Your task to perform on an android device: Open location settings Image 0: 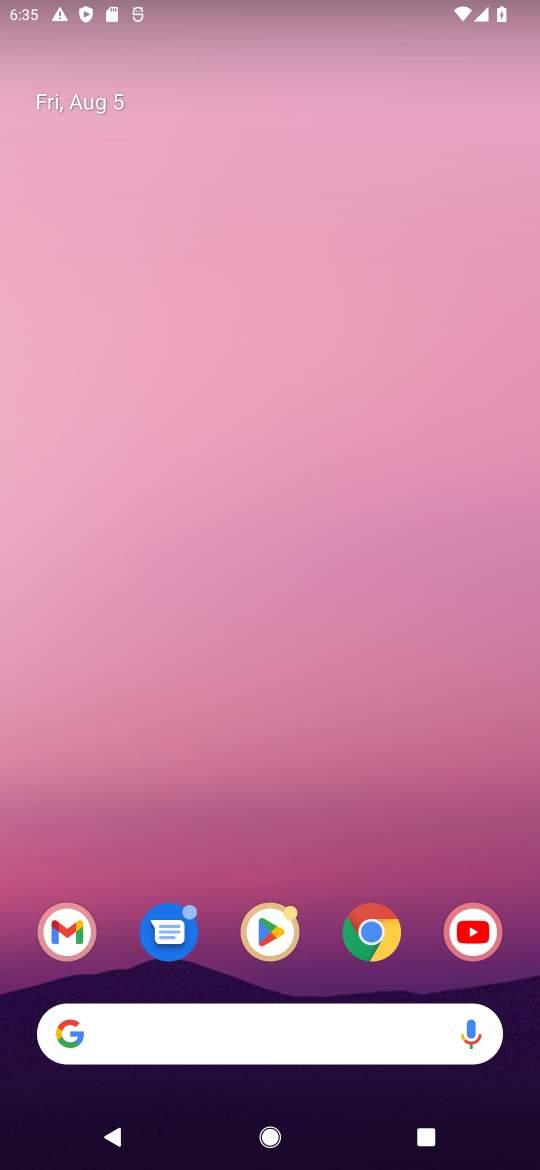
Step 0: drag from (230, 1047) to (213, 198)
Your task to perform on an android device: Open location settings Image 1: 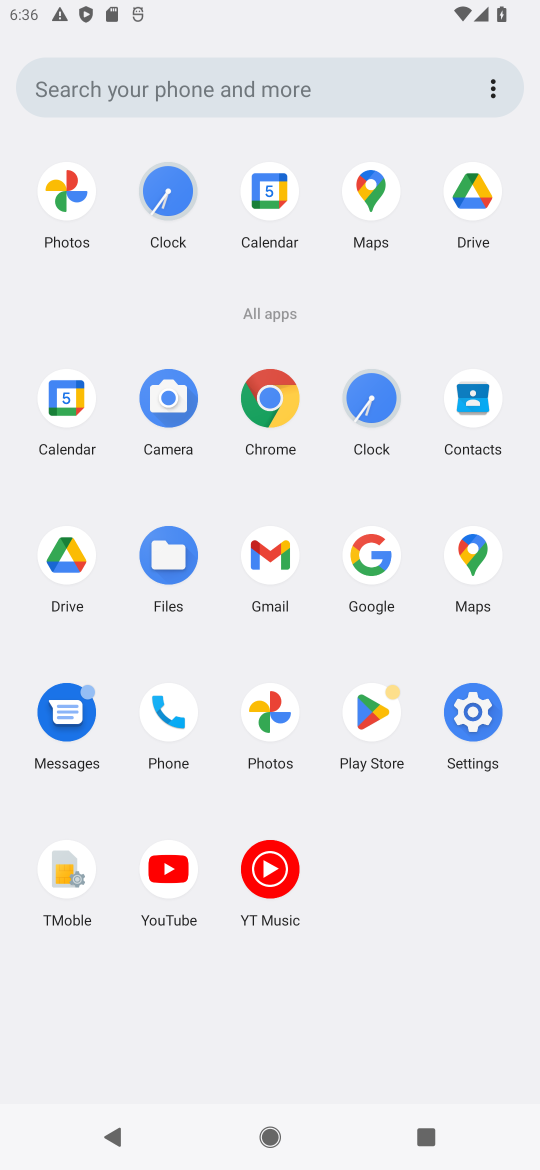
Step 1: click (468, 712)
Your task to perform on an android device: Open location settings Image 2: 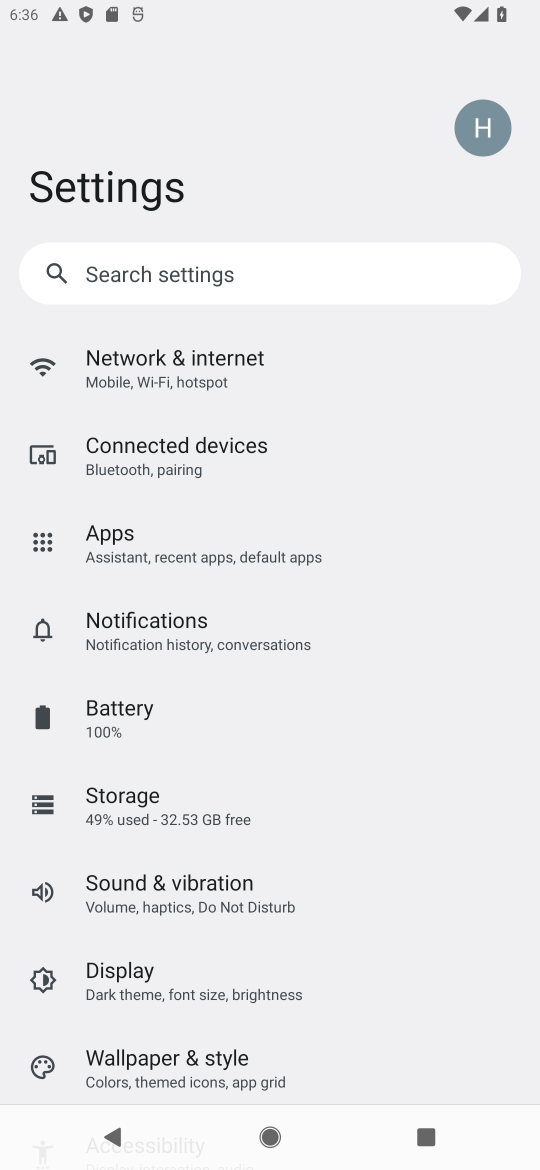
Step 2: drag from (223, 709) to (181, 525)
Your task to perform on an android device: Open location settings Image 3: 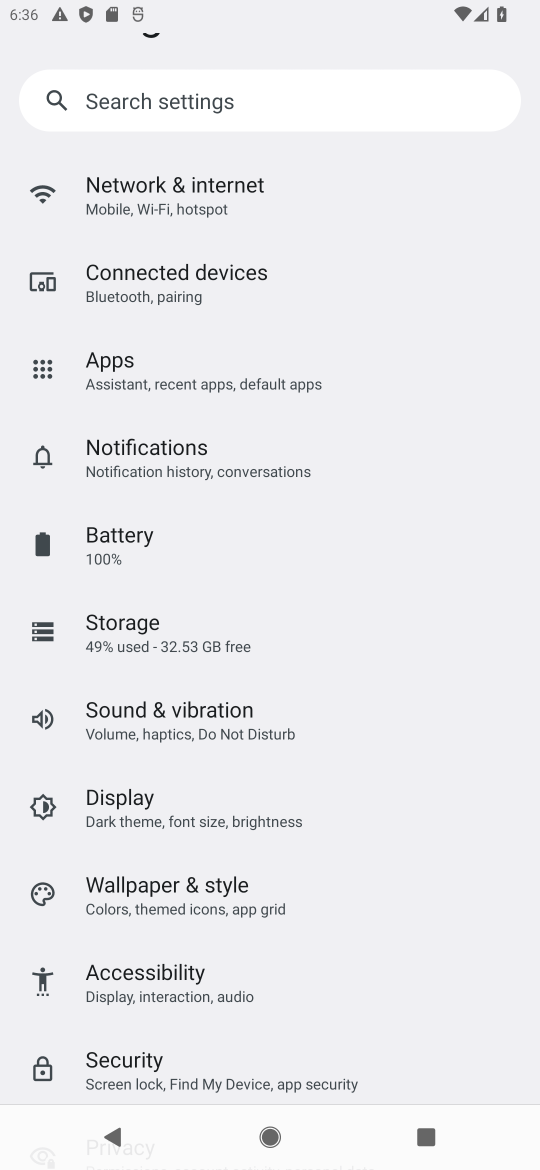
Step 3: drag from (208, 770) to (192, 601)
Your task to perform on an android device: Open location settings Image 4: 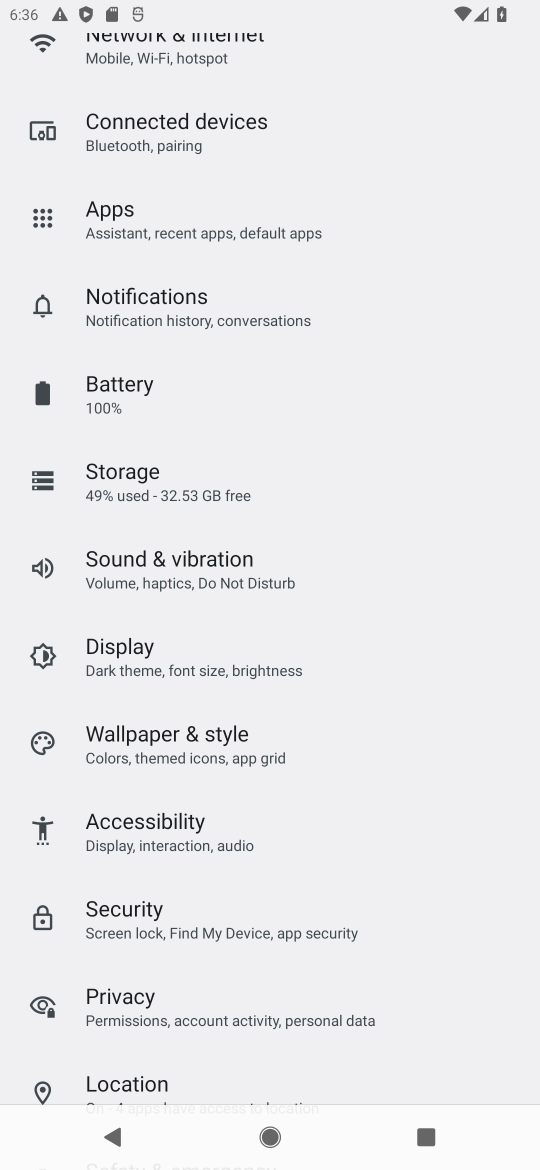
Step 4: drag from (203, 897) to (210, 708)
Your task to perform on an android device: Open location settings Image 5: 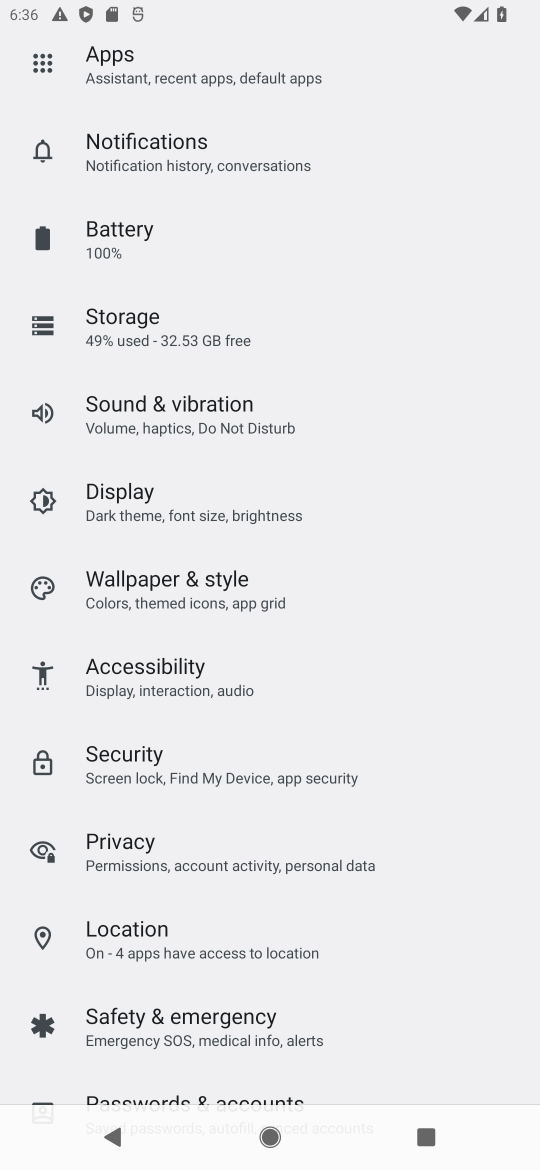
Step 5: click (173, 938)
Your task to perform on an android device: Open location settings Image 6: 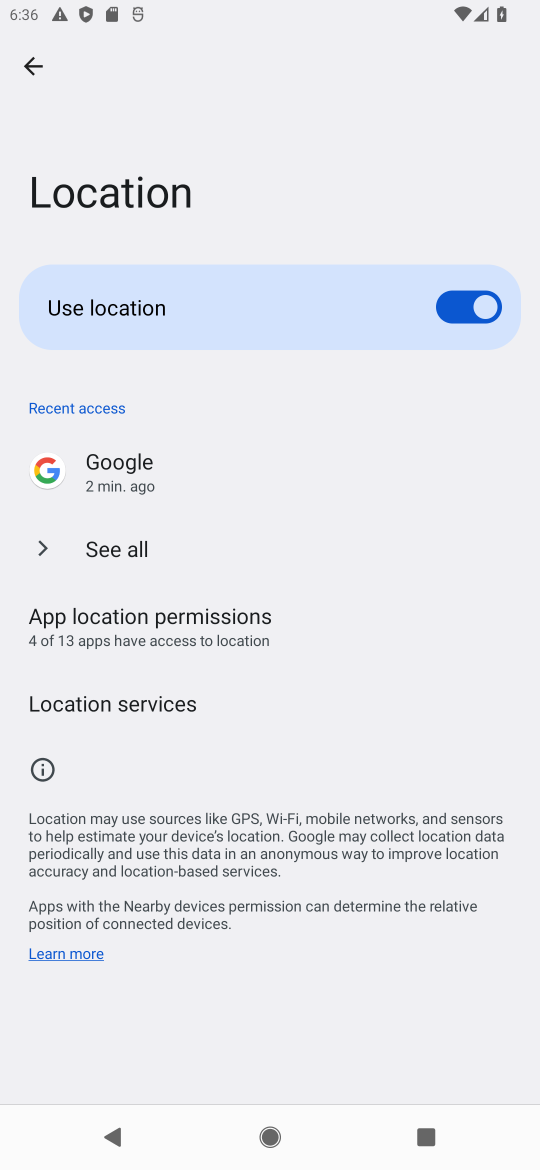
Step 6: task complete